Your task to perform on an android device: remove spam from my inbox in the gmail app Image 0: 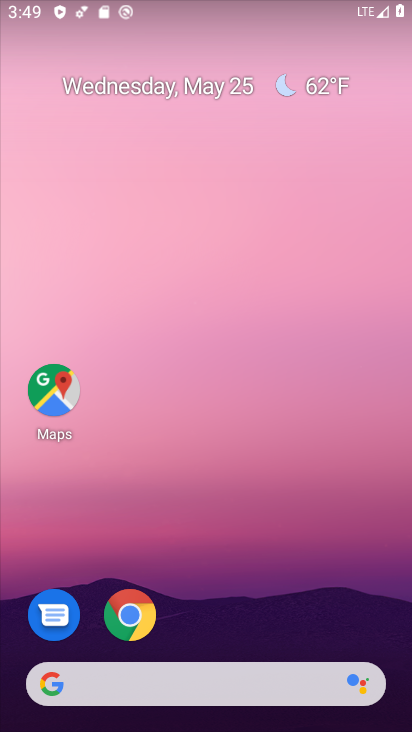
Step 0: drag from (299, 446) to (246, 46)
Your task to perform on an android device: remove spam from my inbox in the gmail app Image 1: 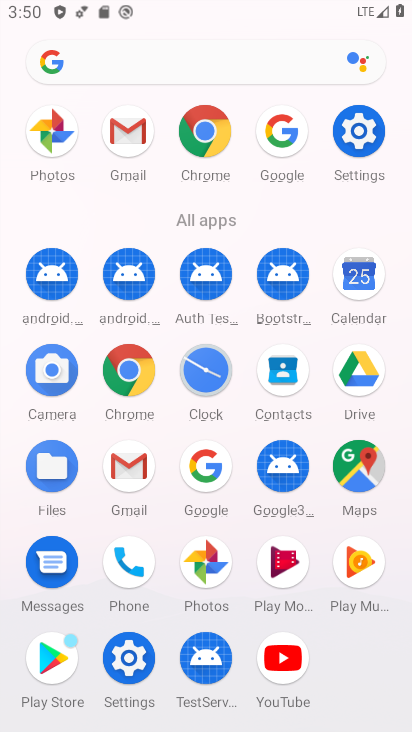
Step 1: click (120, 478)
Your task to perform on an android device: remove spam from my inbox in the gmail app Image 2: 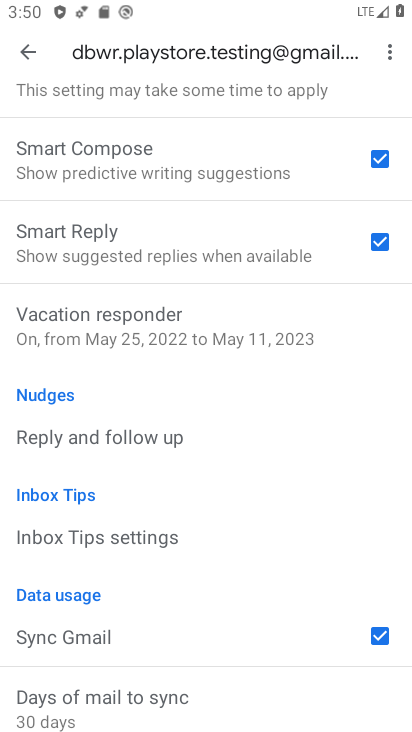
Step 2: click (28, 57)
Your task to perform on an android device: remove spam from my inbox in the gmail app Image 3: 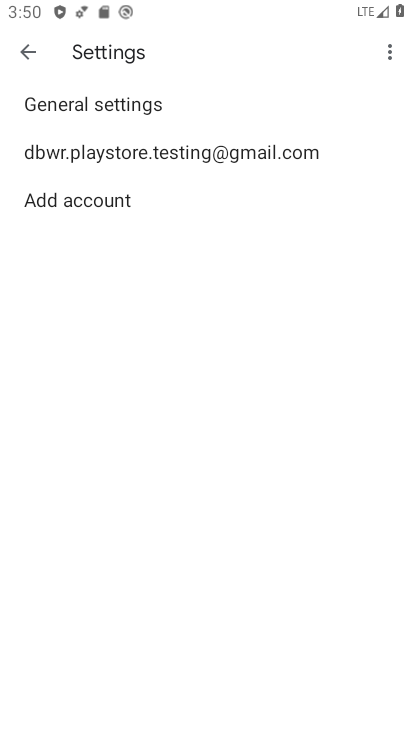
Step 3: click (26, 58)
Your task to perform on an android device: remove spam from my inbox in the gmail app Image 4: 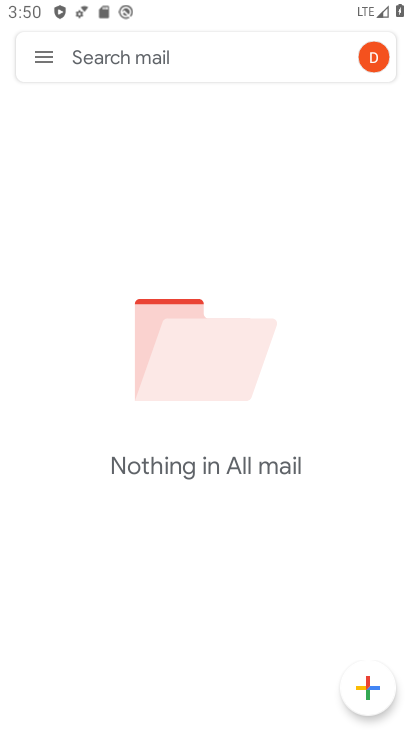
Step 4: click (47, 63)
Your task to perform on an android device: remove spam from my inbox in the gmail app Image 5: 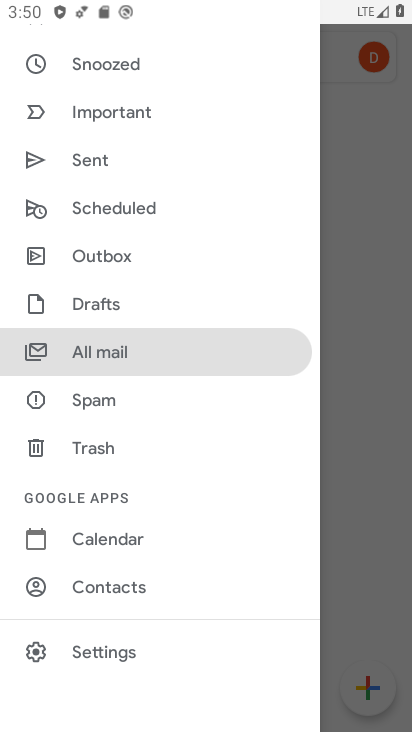
Step 5: click (149, 403)
Your task to perform on an android device: remove spam from my inbox in the gmail app Image 6: 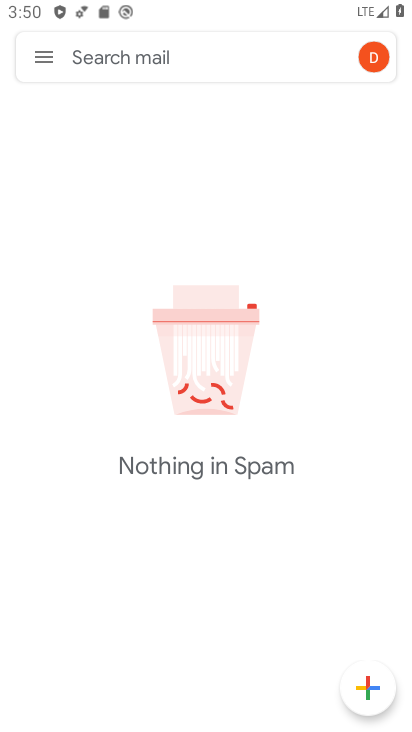
Step 6: task complete